Your task to perform on an android device: choose inbox layout in the gmail app Image 0: 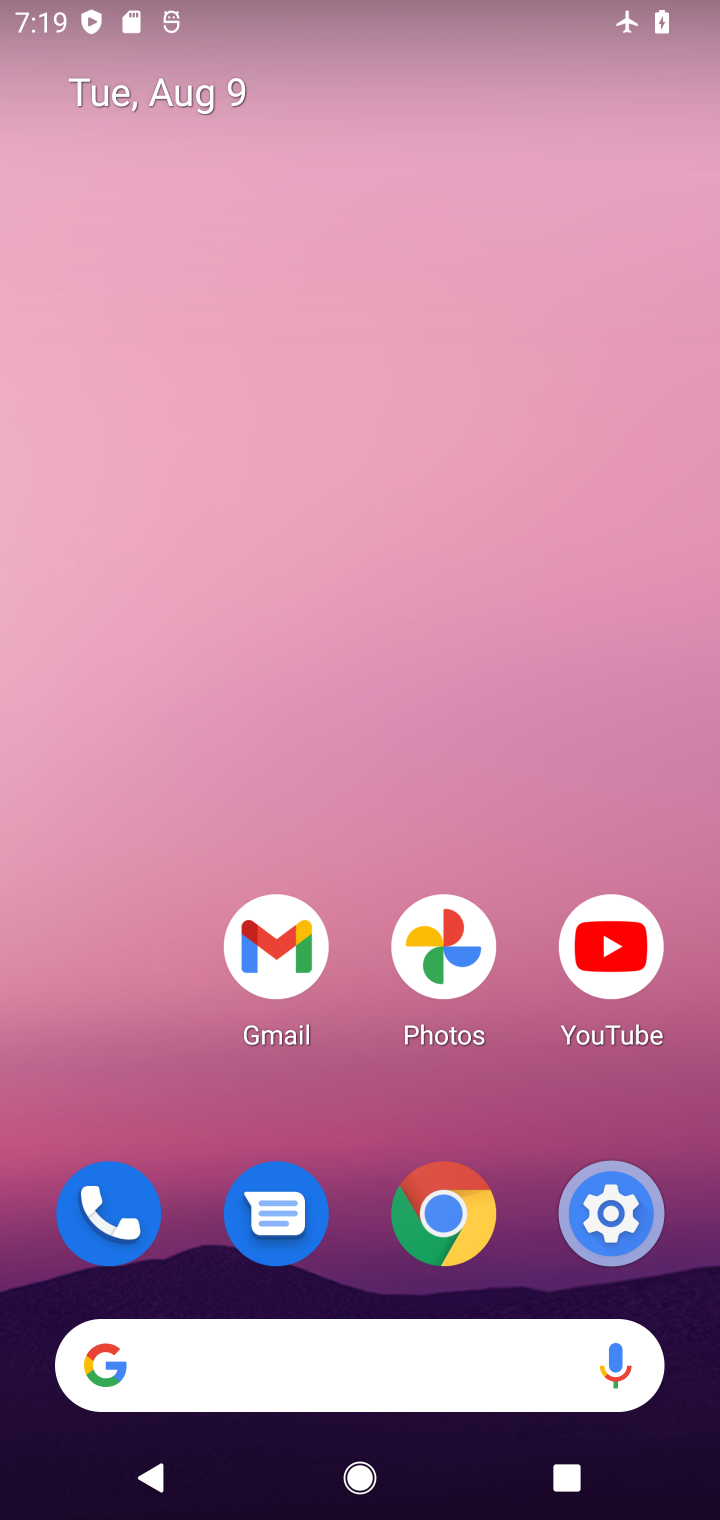
Step 0: drag from (401, 1306) to (176, 205)
Your task to perform on an android device: choose inbox layout in the gmail app Image 1: 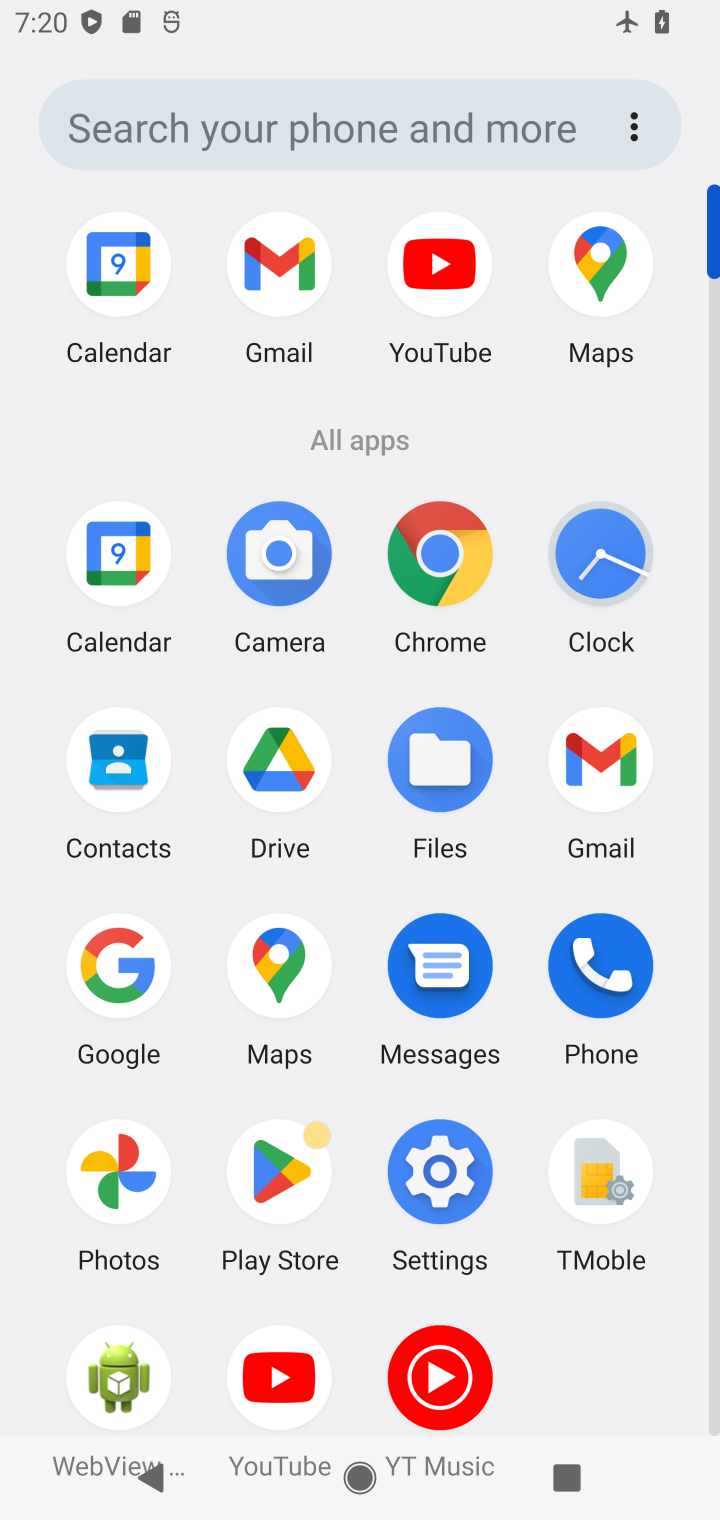
Step 1: click (572, 790)
Your task to perform on an android device: choose inbox layout in the gmail app Image 2: 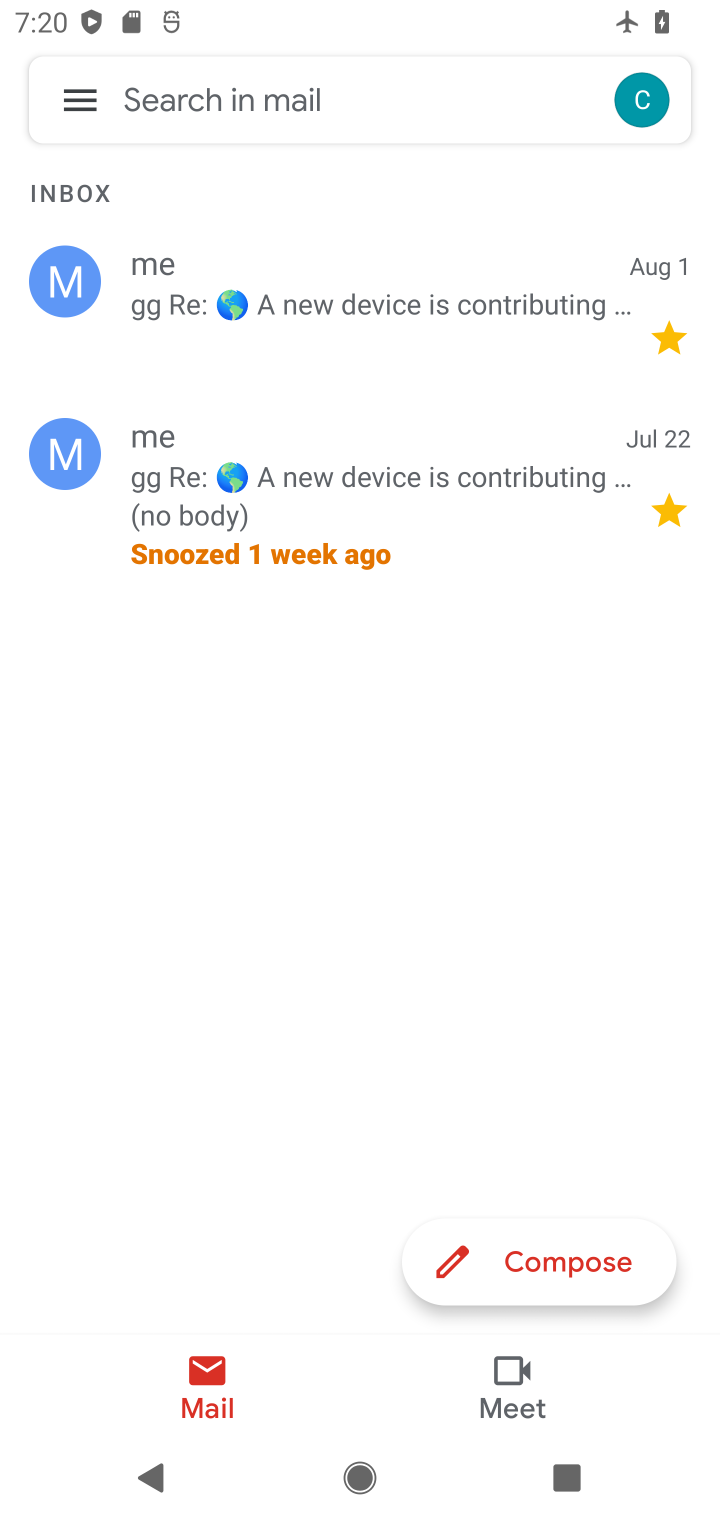
Step 2: task complete